Your task to perform on an android device: change the clock display to analog Image 0: 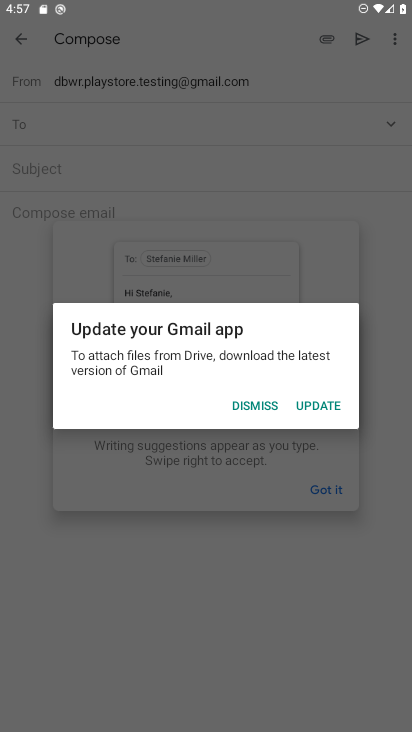
Step 0: press home button
Your task to perform on an android device: change the clock display to analog Image 1: 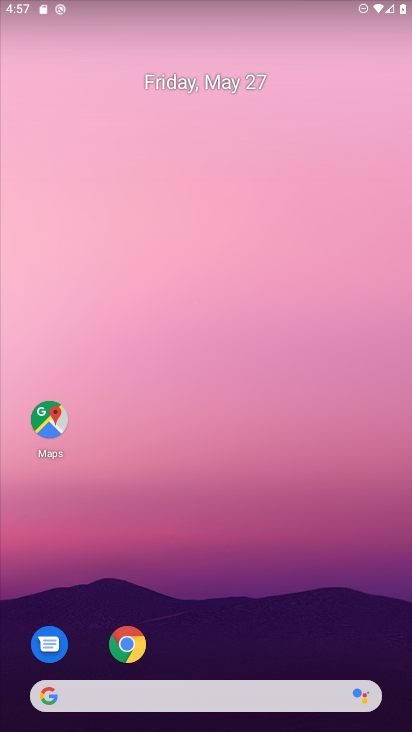
Step 1: drag from (229, 653) to (120, 108)
Your task to perform on an android device: change the clock display to analog Image 2: 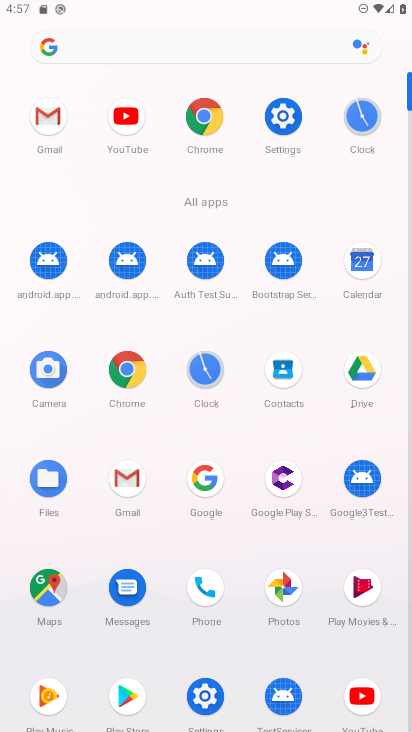
Step 2: click (365, 180)
Your task to perform on an android device: change the clock display to analog Image 3: 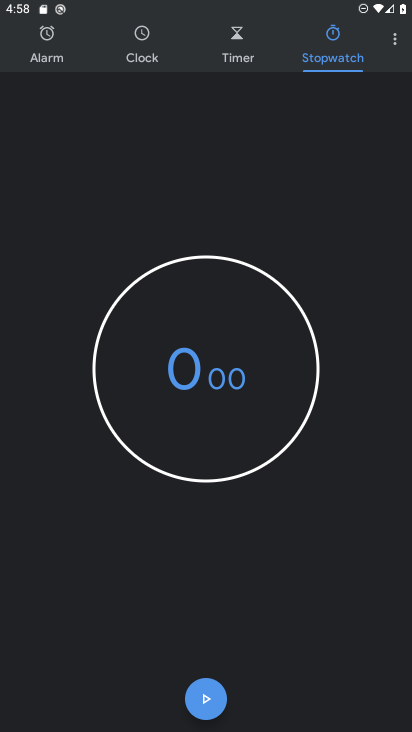
Step 3: click (401, 33)
Your task to perform on an android device: change the clock display to analog Image 4: 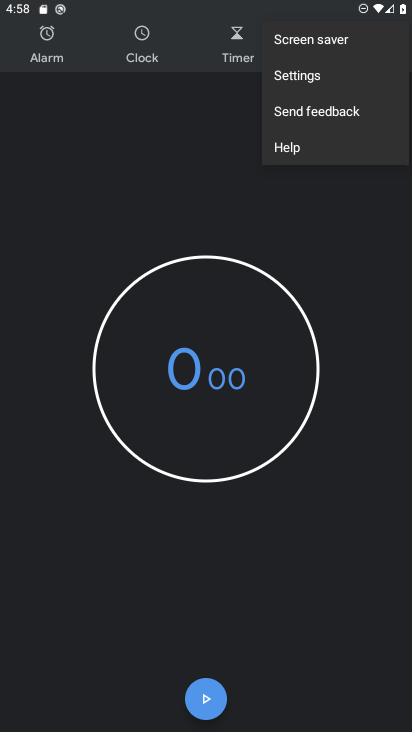
Step 4: click (334, 85)
Your task to perform on an android device: change the clock display to analog Image 5: 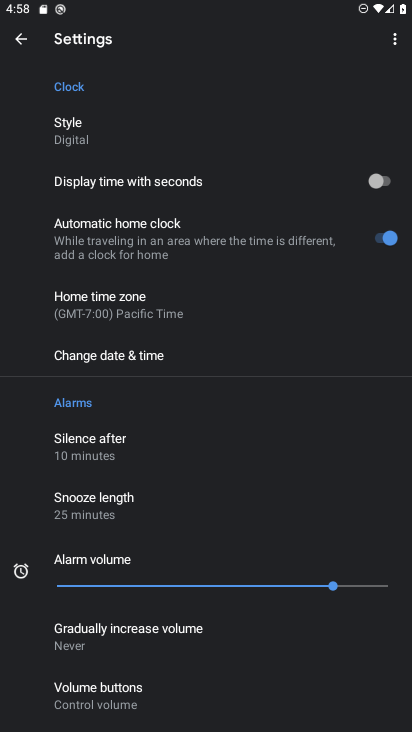
Step 5: click (110, 119)
Your task to perform on an android device: change the clock display to analog Image 6: 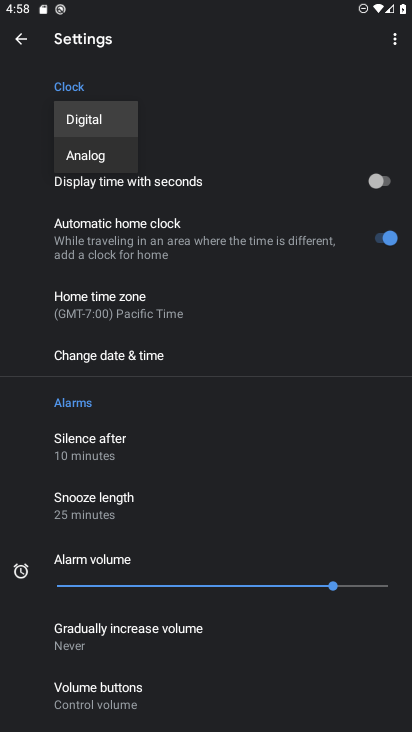
Step 6: click (95, 171)
Your task to perform on an android device: change the clock display to analog Image 7: 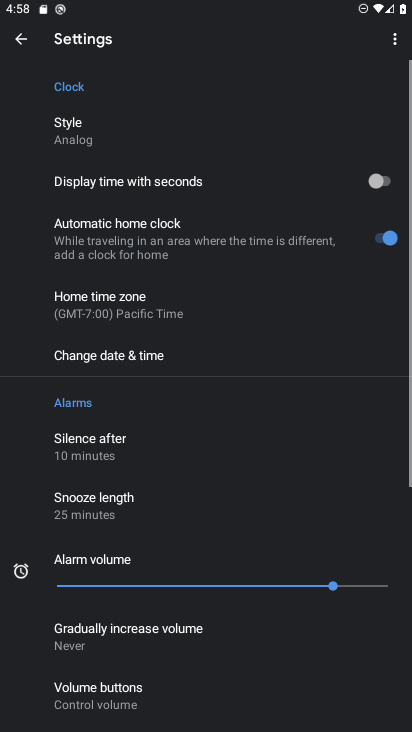
Step 7: task complete